Your task to perform on an android device: Go to ESPN.com Image 0: 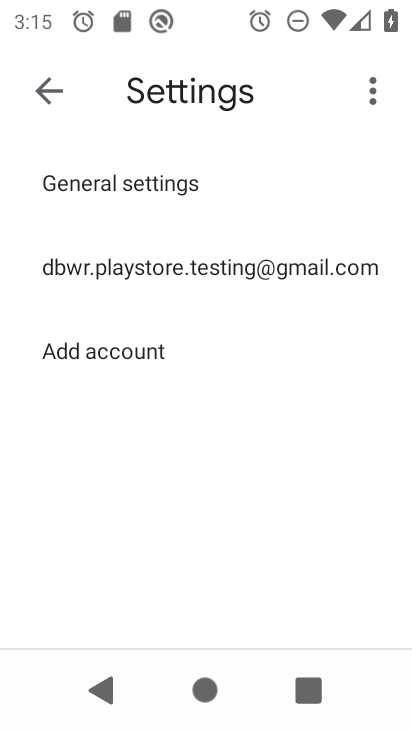
Step 0: press home button
Your task to perform on an android device: Go to ESPN.com Image 1: 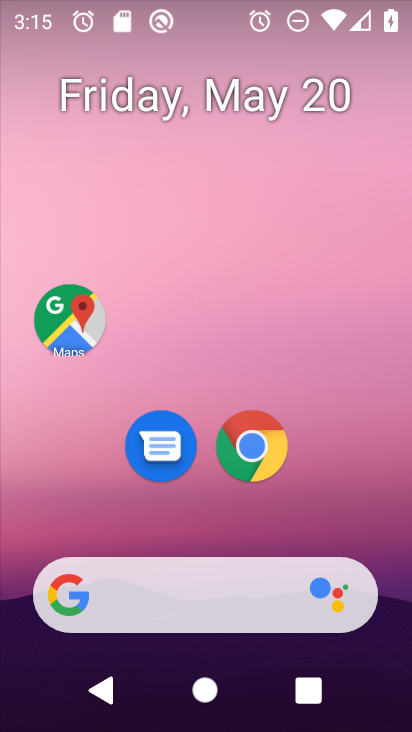
Step 1: click (259, 448)
Your task to perform on an android device: Go to ESPN.com Image 2: 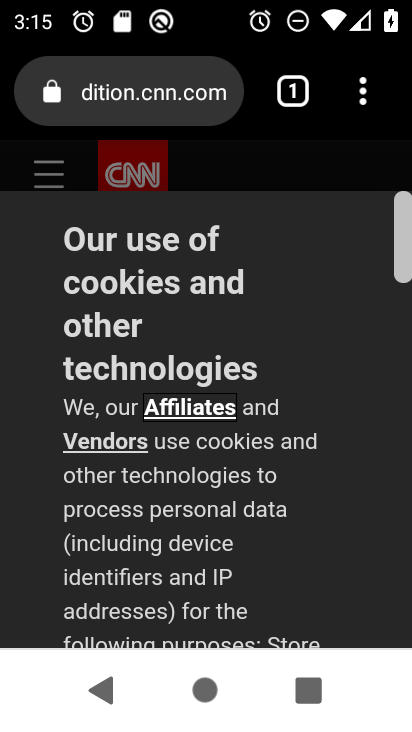
Step 2: click (90, 97)
Your task to perform on an android device: Go to ESPN.com Image 3: 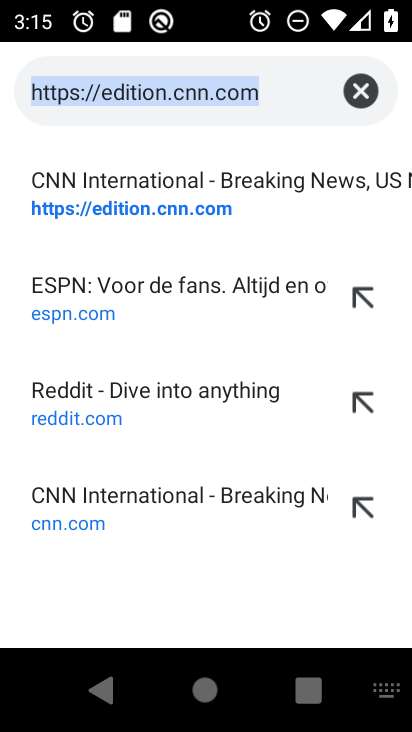
Step 3: click (78, 304)
Your task to perform on an android device: Go to ESPN.com Image 4: 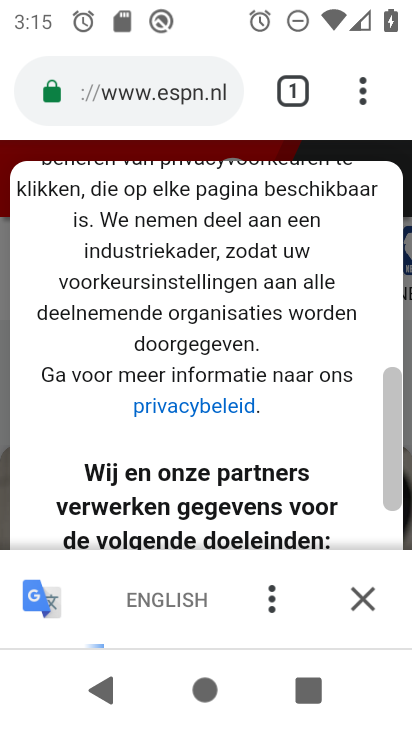
Step 4: task complete